Your task to perform on an android device: toggle wifi Image 0: 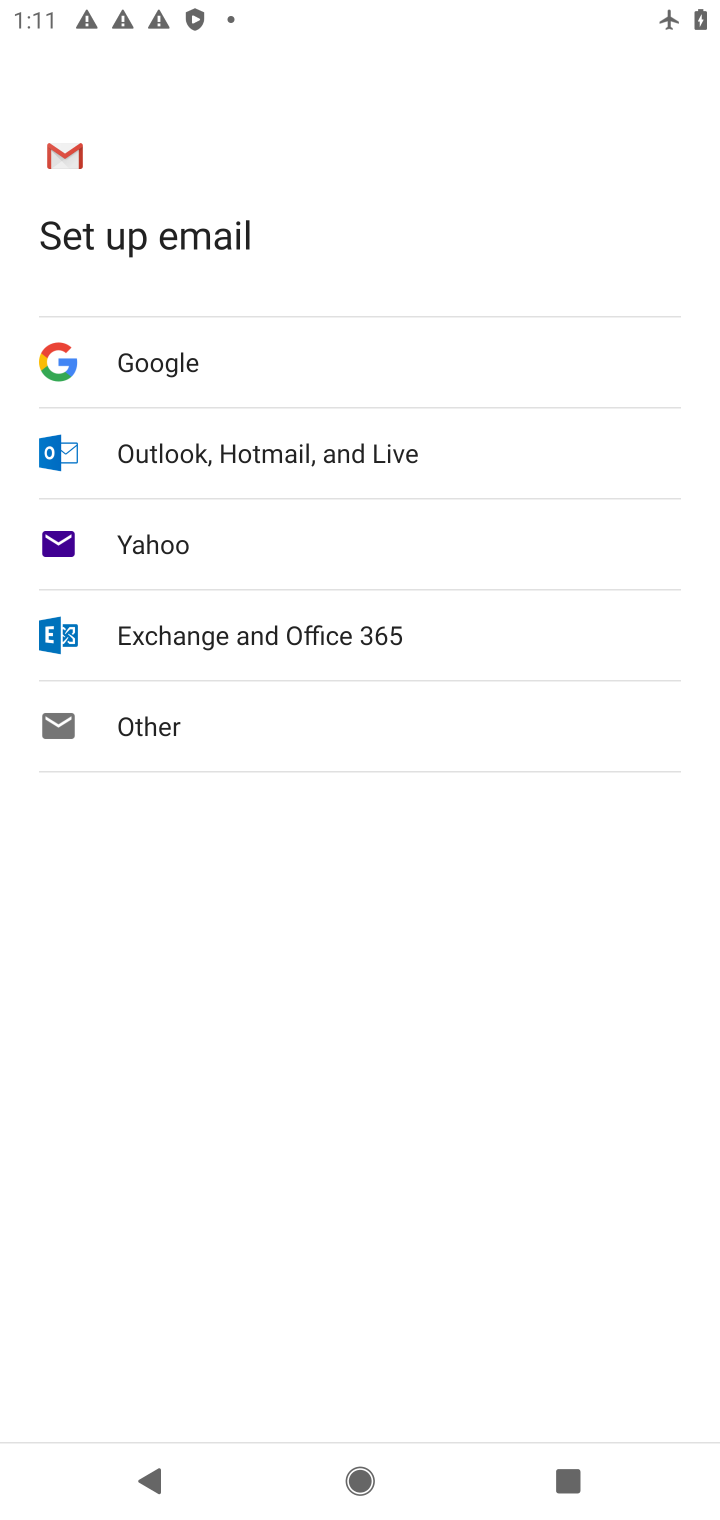
Step 0: press home button
Your task to perform on an android device: toggle wifi Image 1: 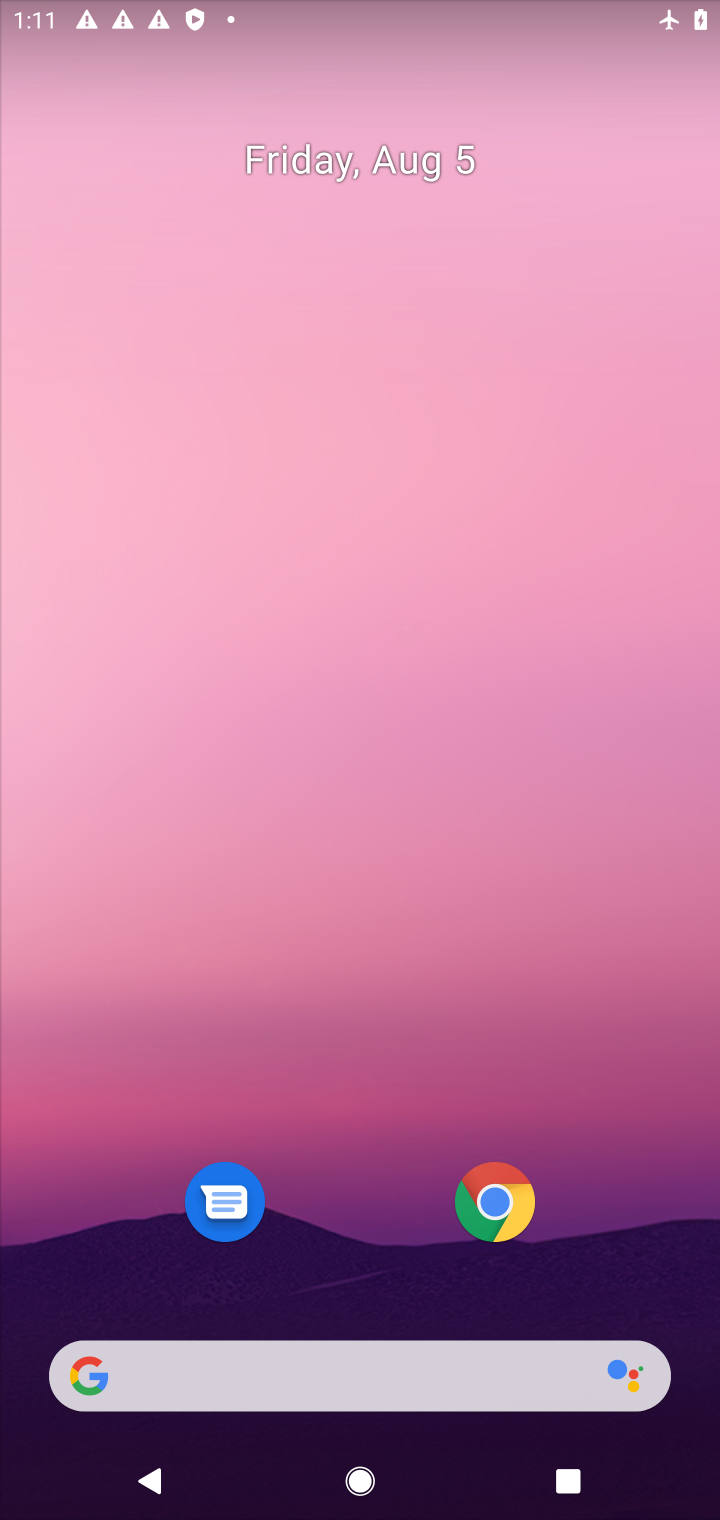
Step 1: drag from (616, 1178) to (530, 411)
Your task to perform on an android device: toggle wifi Image 2: 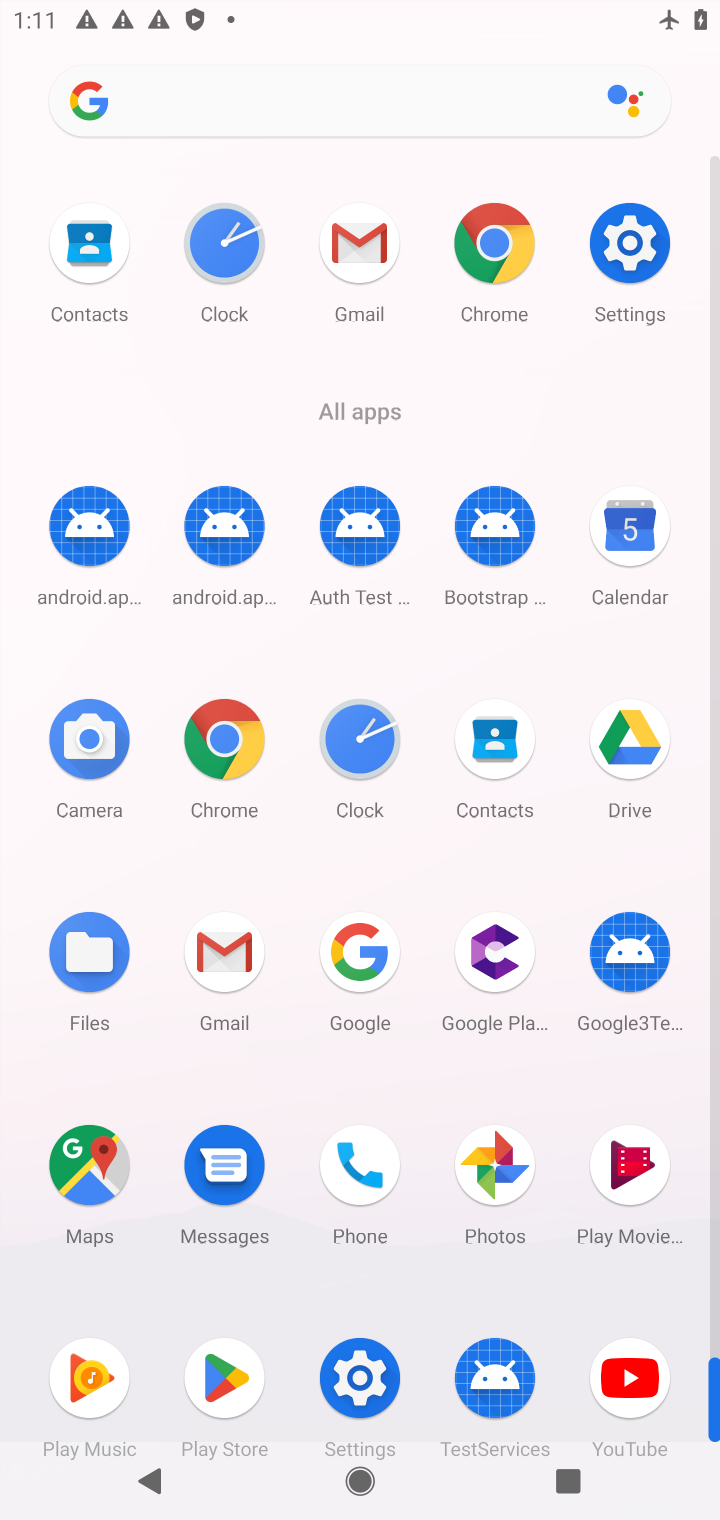
Step 2: click (363, 1364)
Your task to perform on an android device: toggle wifi Image 3: 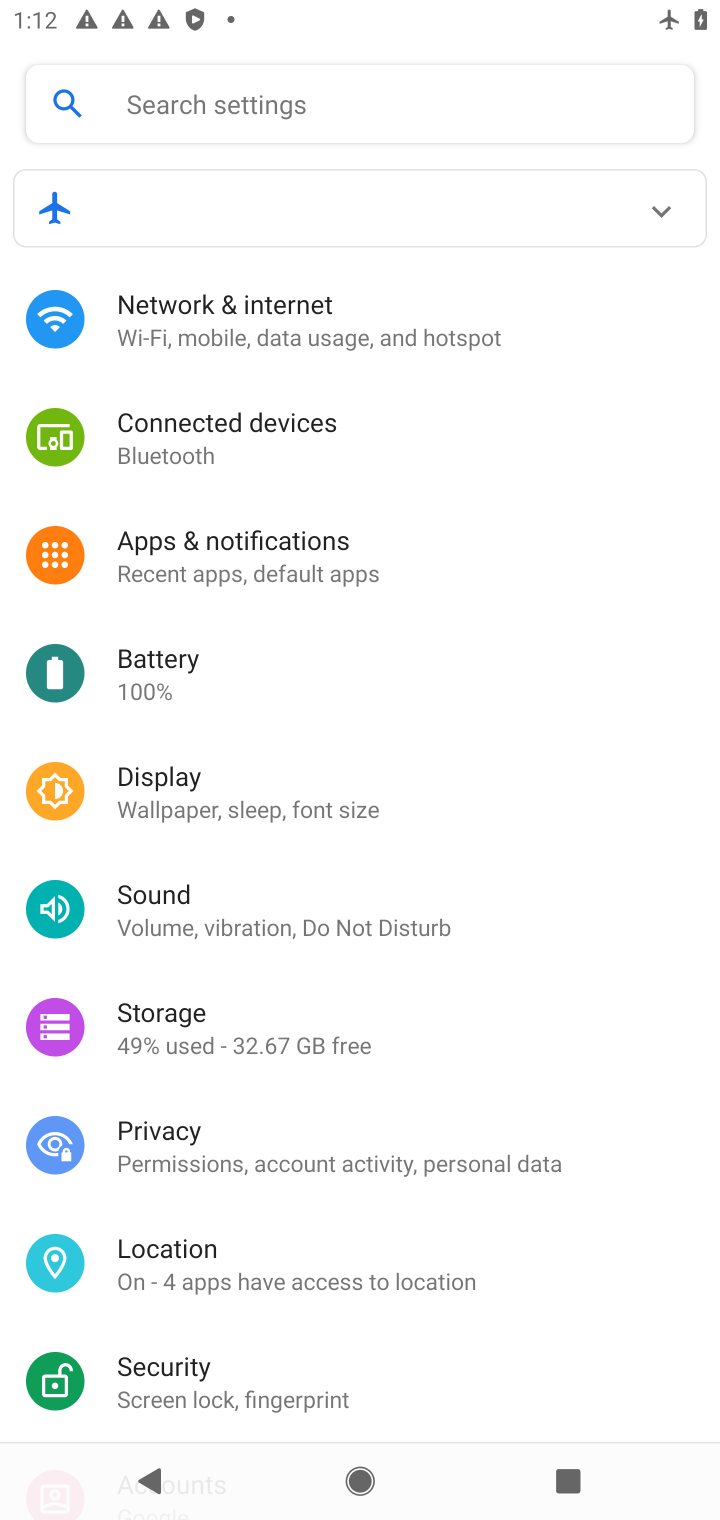
Step 3: click (163, 309)
Your task to perform on an android device: toggle wifi Image 4: 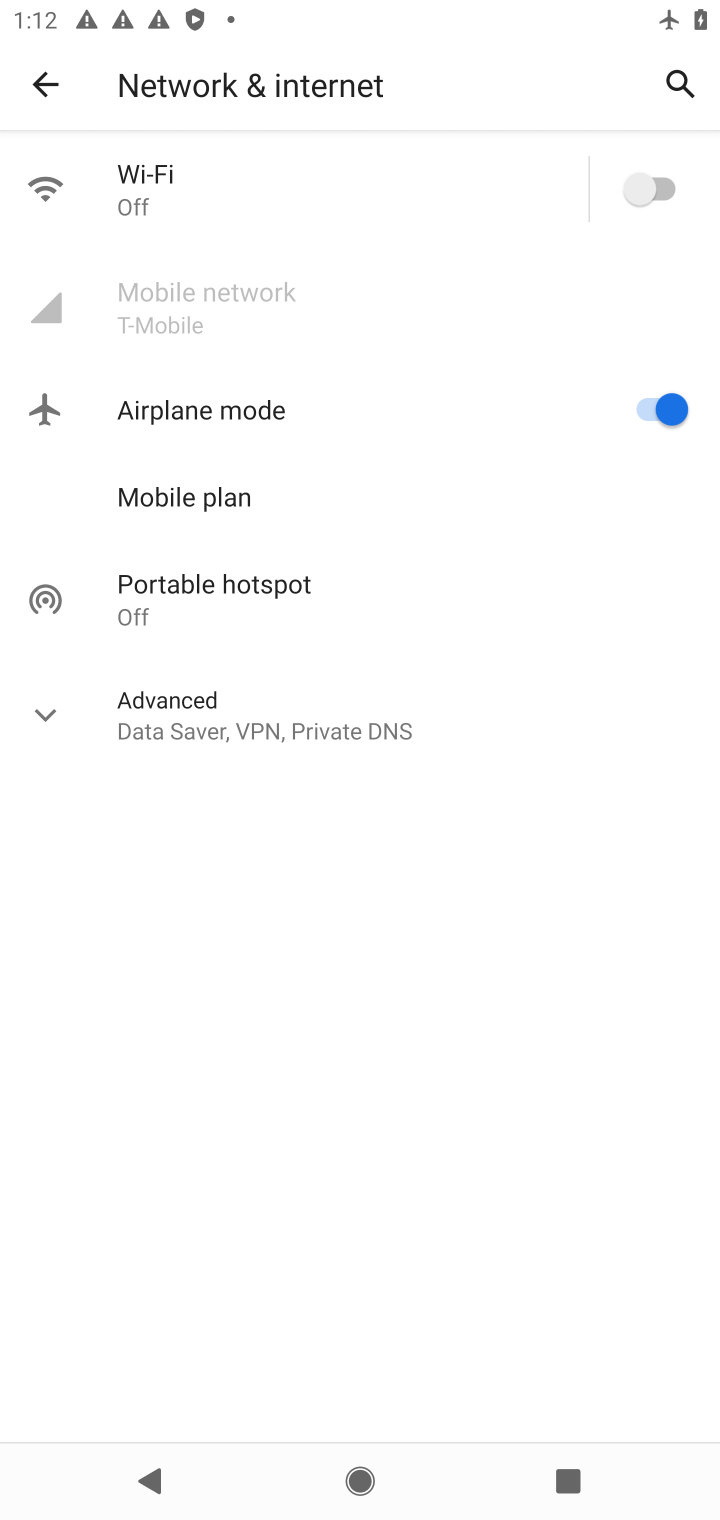
Step 4: click (375, 165)
Your task to perform on an android device: toggle wifi Image 5: 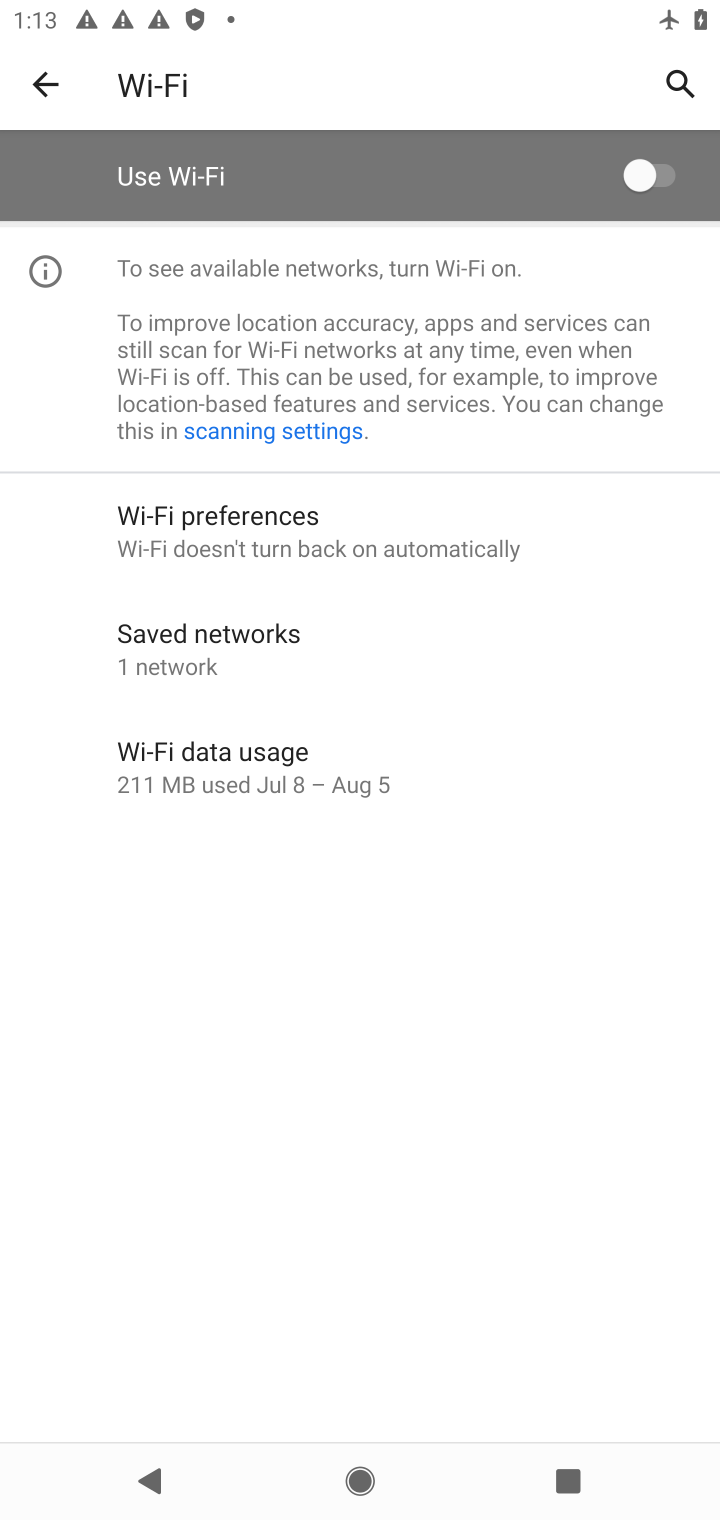
Step 5: click (660, 180)
Your task to perform on an android device: toggle wifi Image 6: 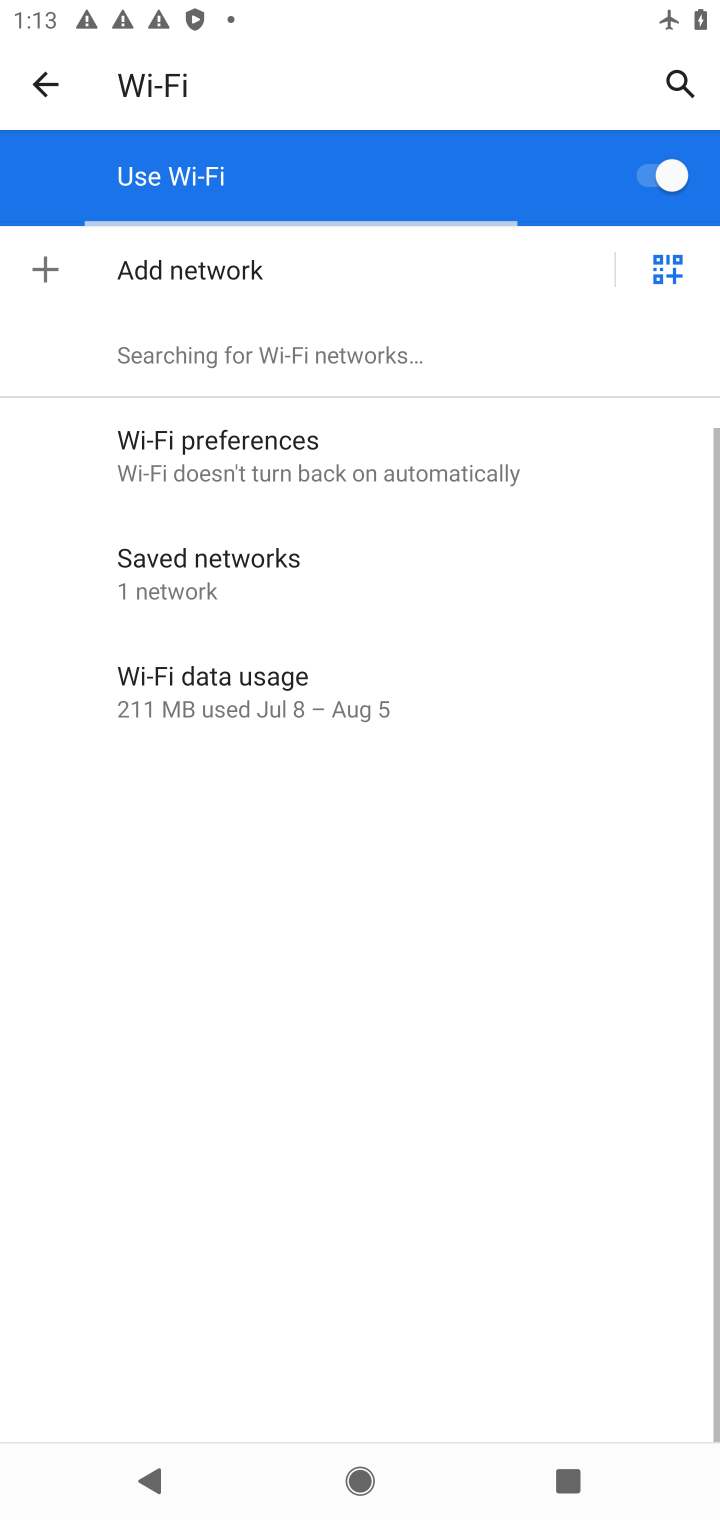
Step 6: task complete